Your task to perform on an android device: Search for the best rated drill on Lowes.com Image 0: 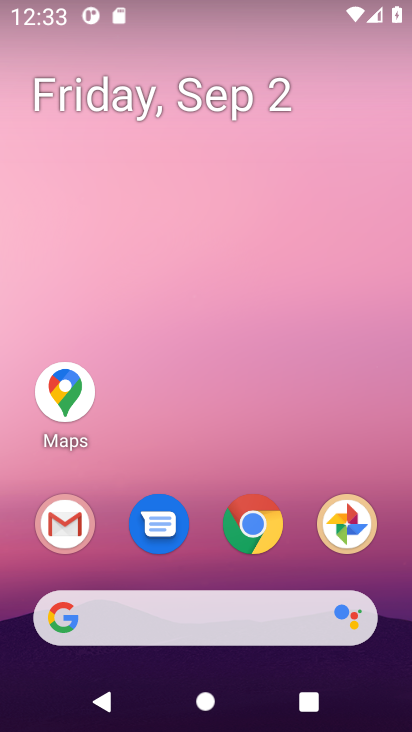
Step 0: press home button
Your task to perform on an android device: Search for the best rated drill on Lowes.com Image 1: 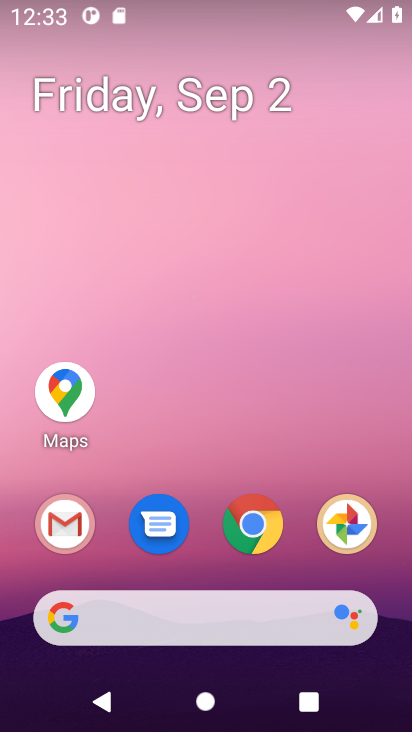
Step 1: click (299, 615)
Your task to perform on an android device: Search for the best rated drill on Lowes.com Image 2: 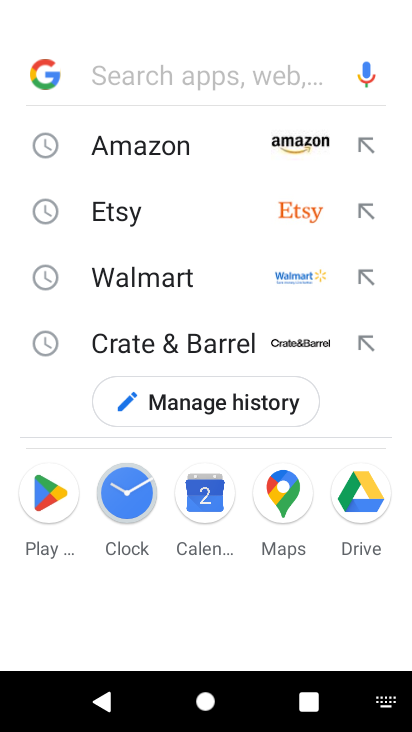
Step 2: press enter
Your task to perform on an android device: Search for the best rated drill on Lowes.com Image 3: 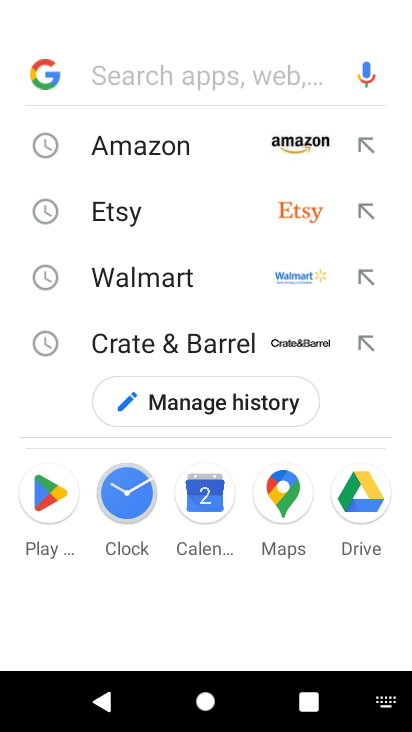
Step 3: type "lowes.com"
Your task to perform on an android device: Search for the best rated drill on Lowes.com Image 4: 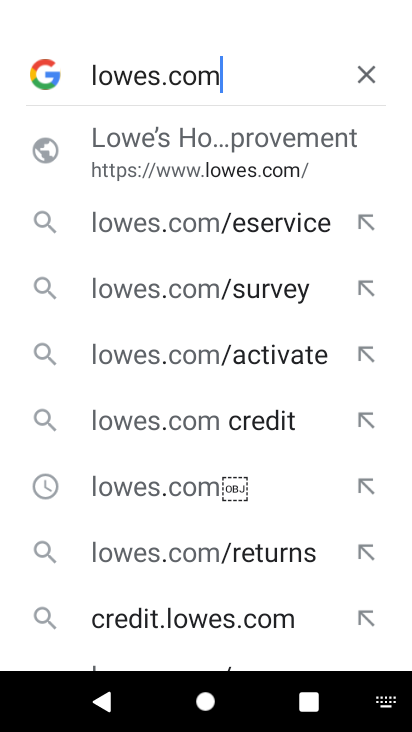
Step 4: click (250, 158)
Your task to perform on an android device: Search for the best rated drill on Lowes.com Image 5: 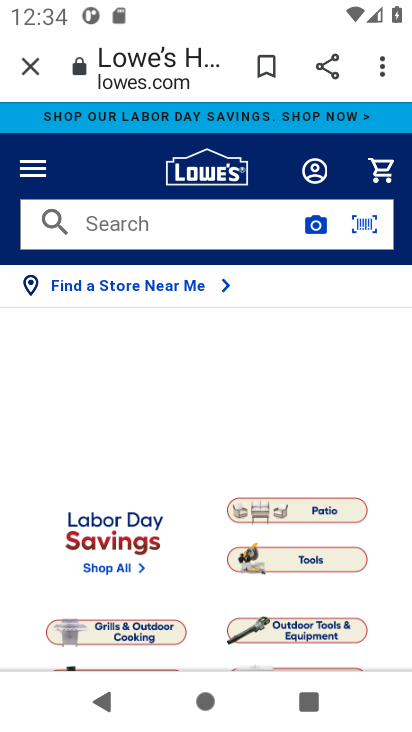
Step 5: click (173, 224)
Your task to perform on an android device: Search for the best rated drill on Lowes.com Image 6: 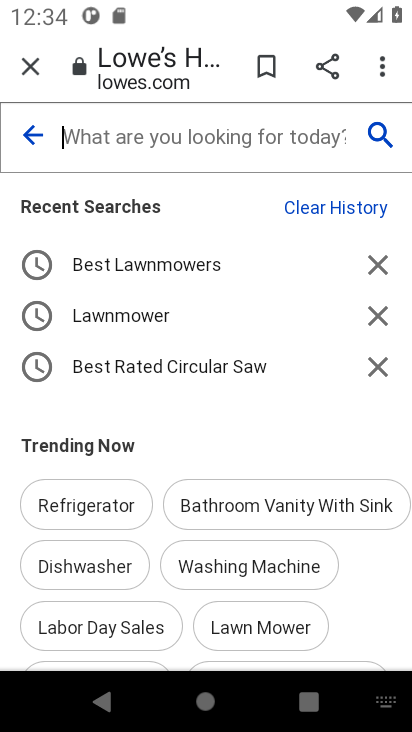
Step 6: press enter
Your task to perform on an android device: Search for the best rated drill on Lowes.com Image 7: 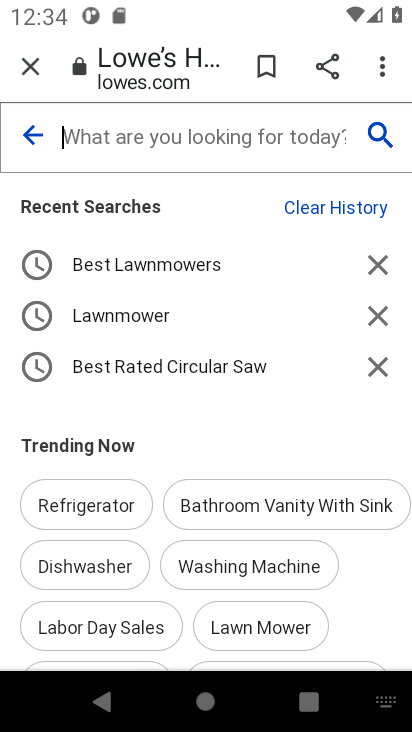
Step 7: type "best rated drill"
Your task to perform on an android device: Search for the best rated drill on Lowes.com Image 8: 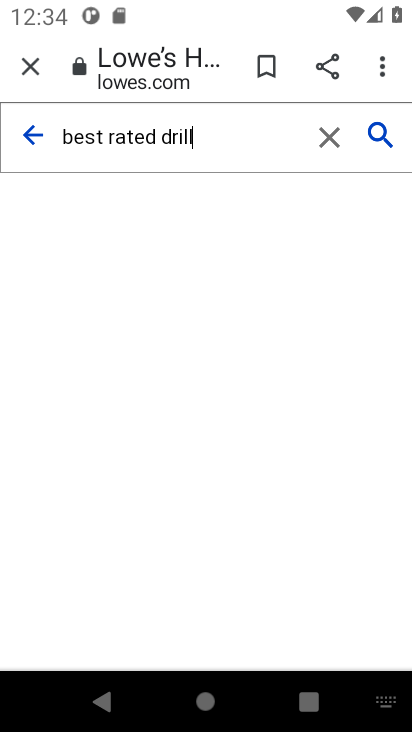
Step 8: click (378, 138)
Your task to perform on an android device: Search for the best rated drill on Lowes.com Image 9: 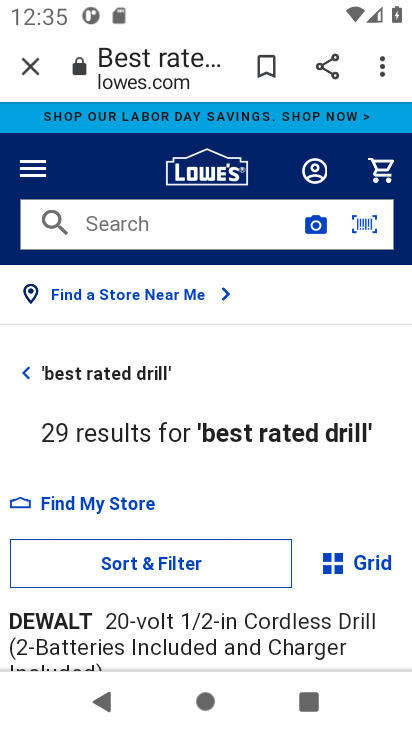
Step 9: task complete